Your task to perform on an android device: Is it going to rain this weekend? Image 0: 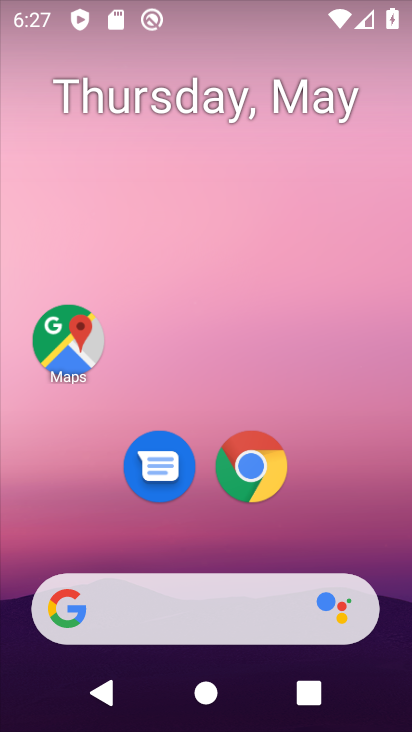
Step 0: click (216, 599)
Your task to perform on an android device: Is it going to rain this weekend? Image 1: 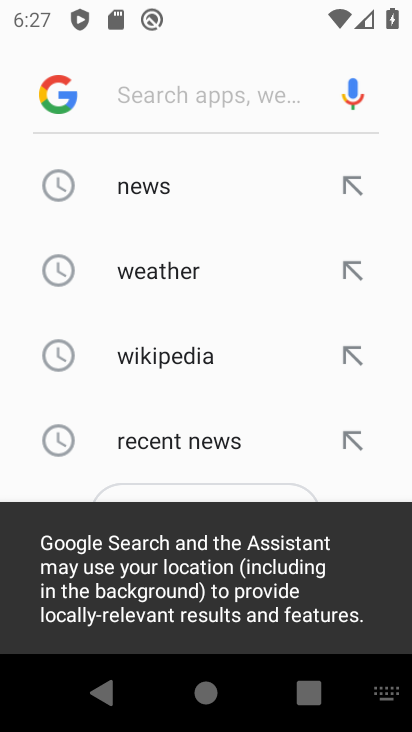
Step 1: click (142, 270)
Your task to perform on an android device: Is it going to rain this weekend? Image 2: 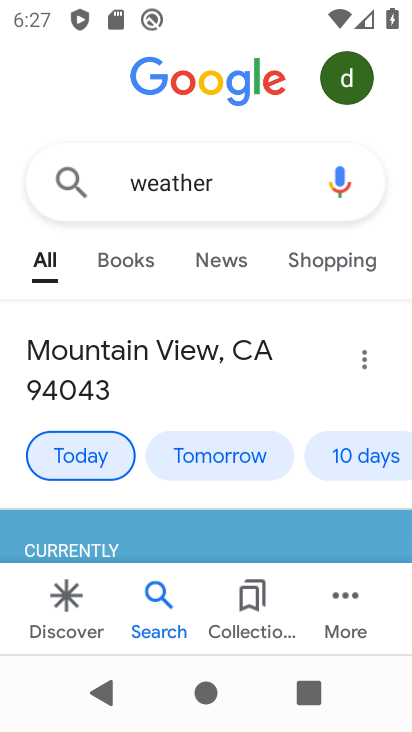
Step 2: task complete